Your task to perform on an android device: Open Reddit.com Image 0: 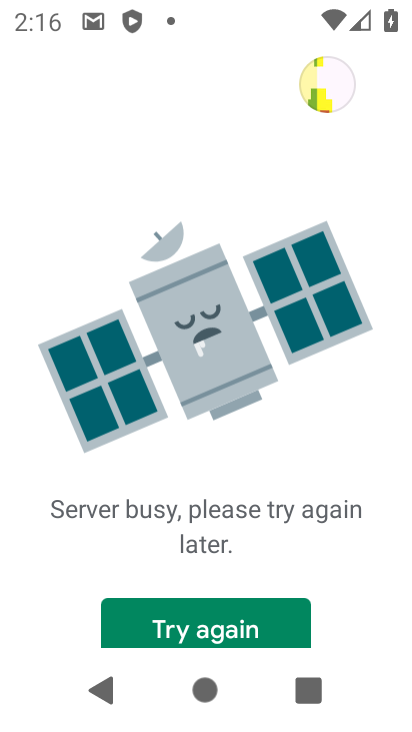
Step 0: press back button
Your task to perform on an android device: Open Reddit.com Image 1: 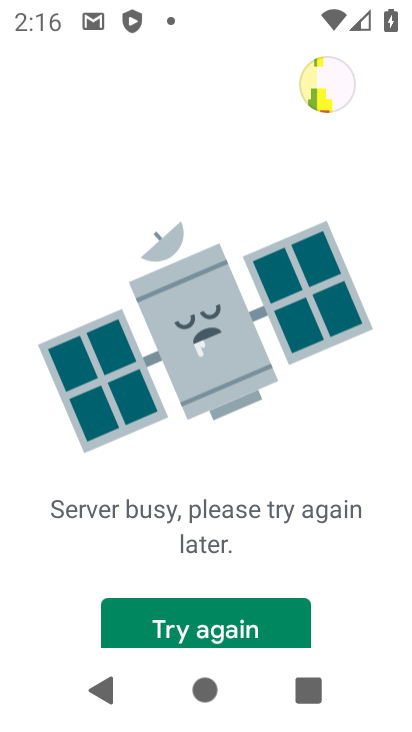
Step 1: press home button
Your task to perform on an android device: Open Reddit.com Image 2: 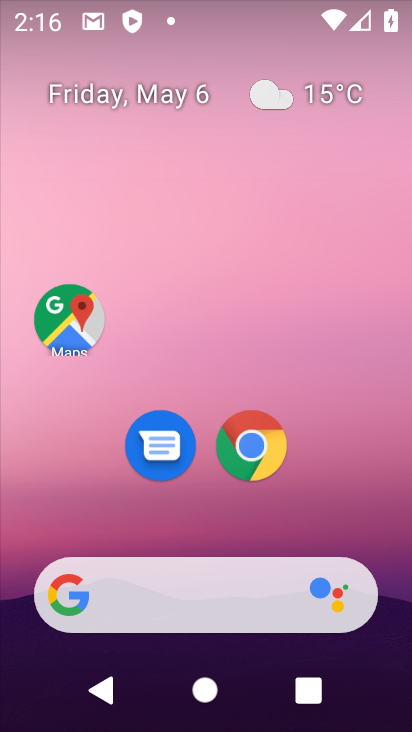
Step 2: click (179, 600)
Your task to perform on an android device: Open Reddit.com Image 3: 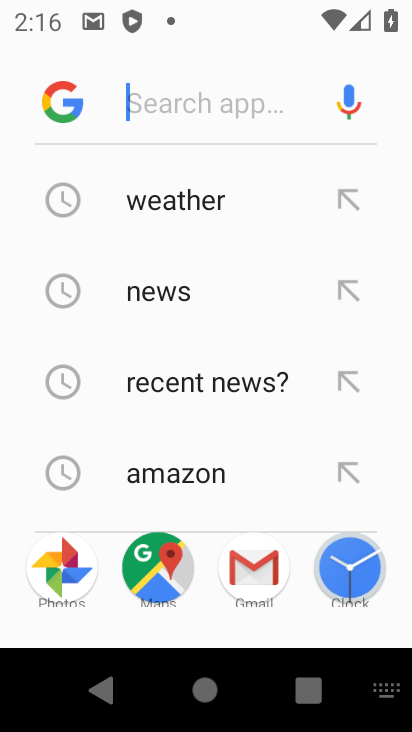
Step 3: type "Reddit.com"
Your task to perform on an android device: Open Reddit.com Image 4: 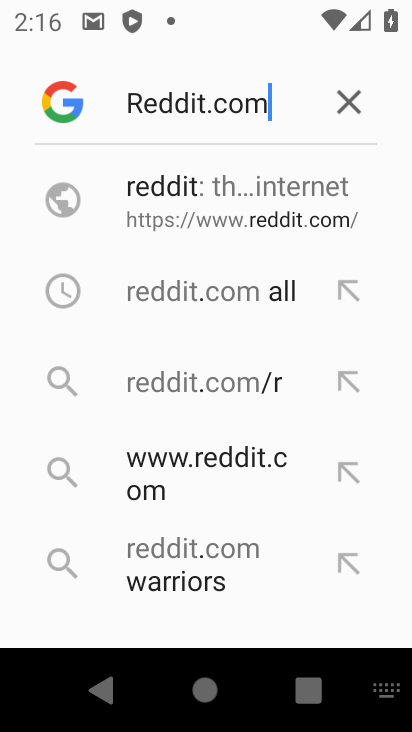
Step 4: click (181, 216)
Your task to perform on an android device: Open Reddit.com Image 5: 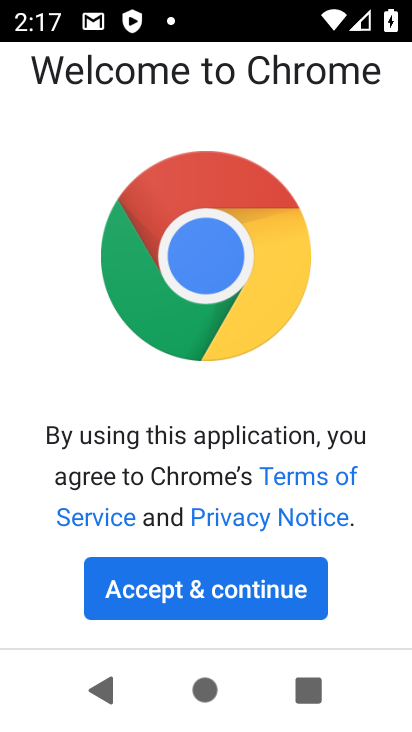
Step 5: click (216, 613)
Your task to perform on an android device: Open Reddit.com Image 6: 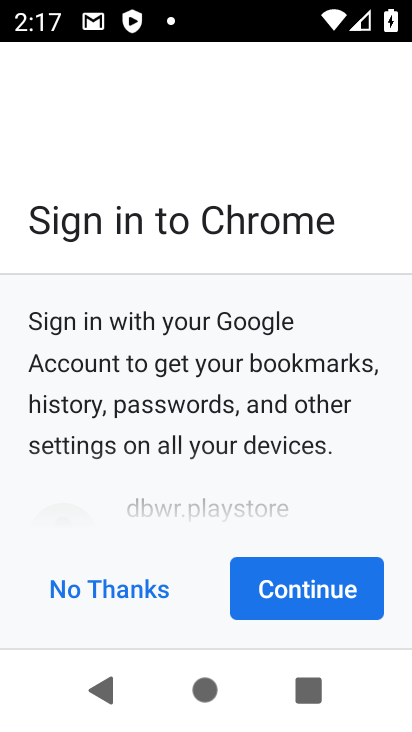
Step 6: click (298, 607)
Your task to perform on an android device: Open Reddit.com Image 7: 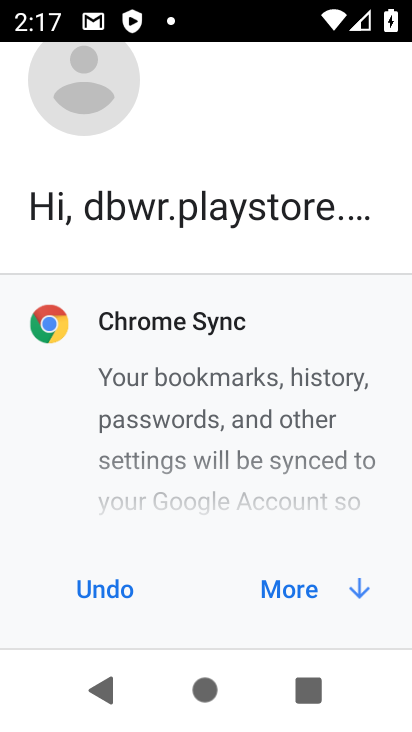
Step 7: click (299, 601)
Your task to perform on an android device: Open Reddit.com Image 8: 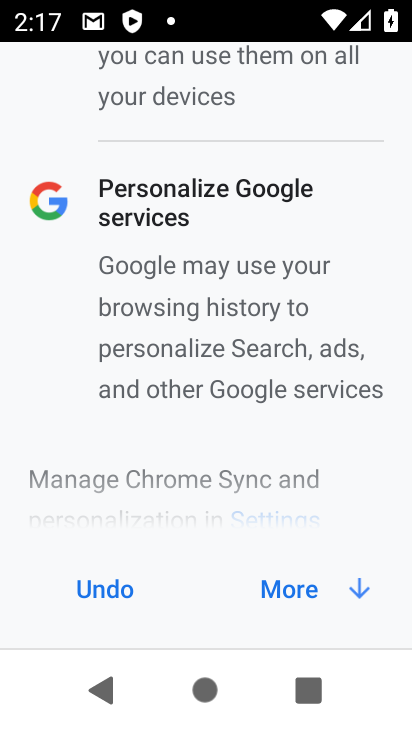
Step 8: click (296, 594)
Your task to perform on an android device: Open Reddit.com Image 9: 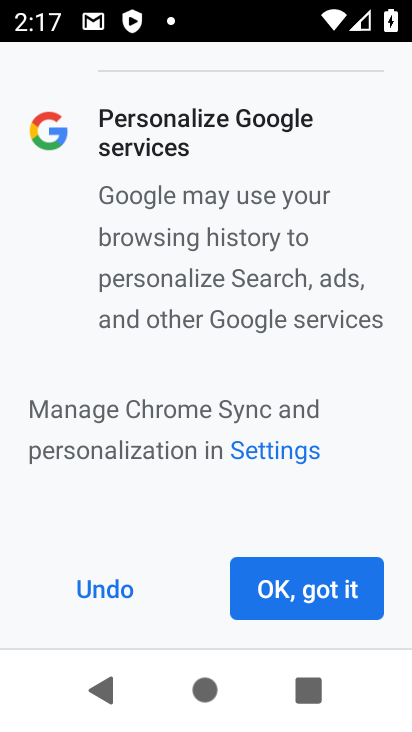
Step 9: click (272, 602)
Your task to perform on an android device: Open Reddit.com Image 10: 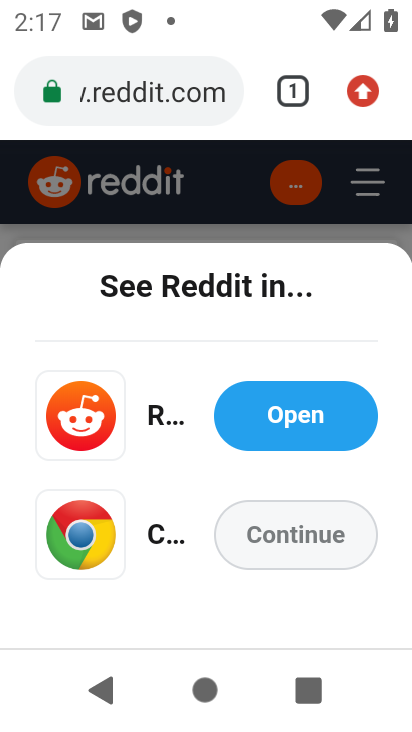
Step 10: click (290, 555)
Your task to perform on an android device: Open Reddit.com Image 11: 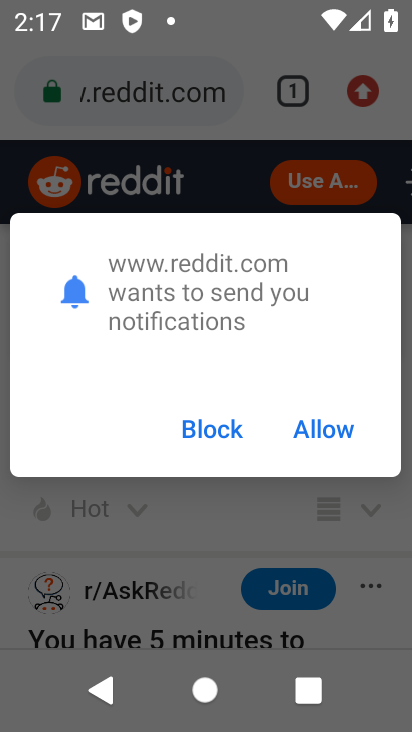
Step 11: click (334, 442)
Your task to perform on an android device: Open Reddit.com Image 12: 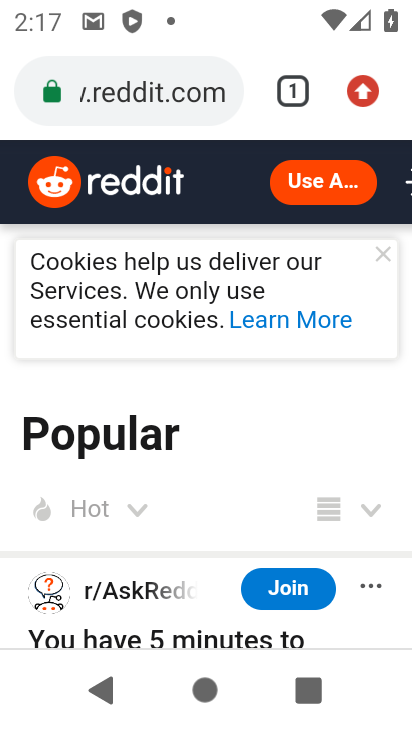
Step 12: task complete